Your task to perform on an android device: turn on notifications settings in the gmail app Image 0: 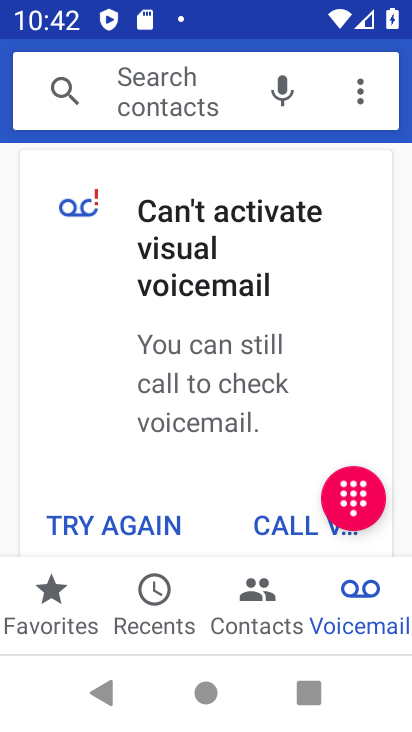
Step 0: press home button
Your task to perform on an android device: turn on notifications settings in the gmail app Image 1: 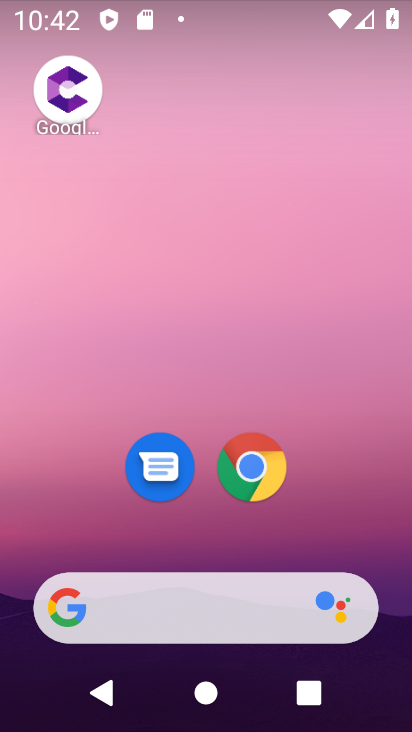
Step 1: drag from (314, 539) to (342, 182)
Your task to perform on an android device: turn on notifications settings in the gmail app Image 2: 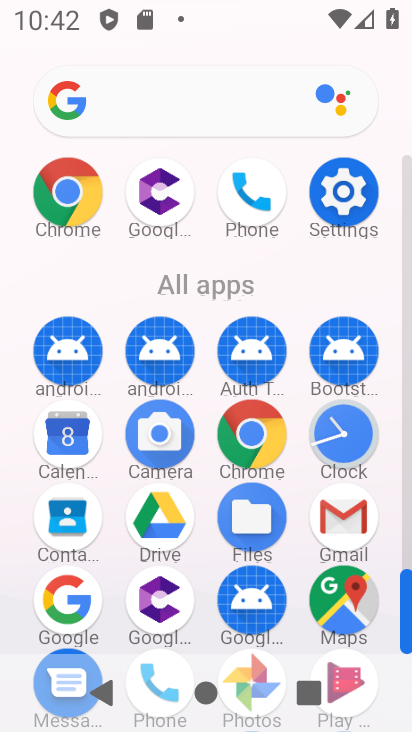
Step 2: click (341, 522)
Your task to perform on an android device: turn on notifications settings in the gmail app Image 3: 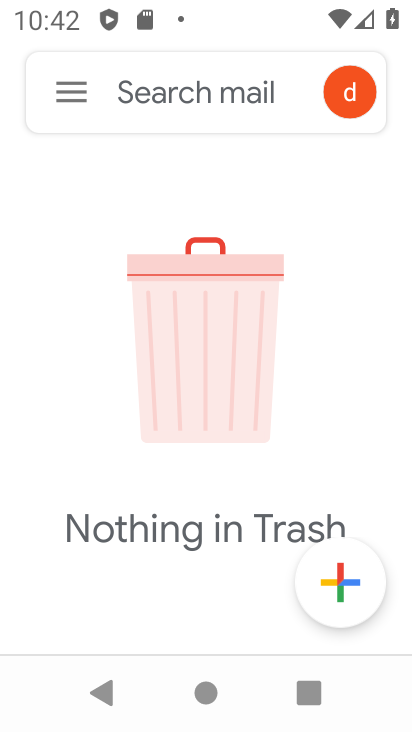
Step 3: click (80, 108)
Your task to perform on an android device: turn on notifications settings in the gmail app Image 4: 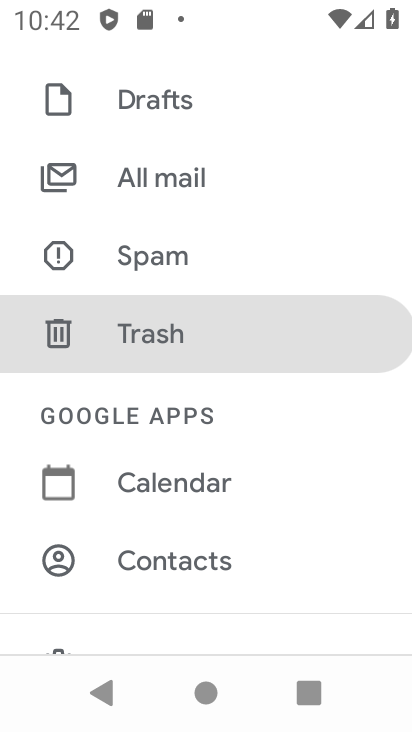
Step 4: drag from (234, 545) to (281, 165)
Your task to perform on an android device: turn on notifications settings in the gmail app Image 5: 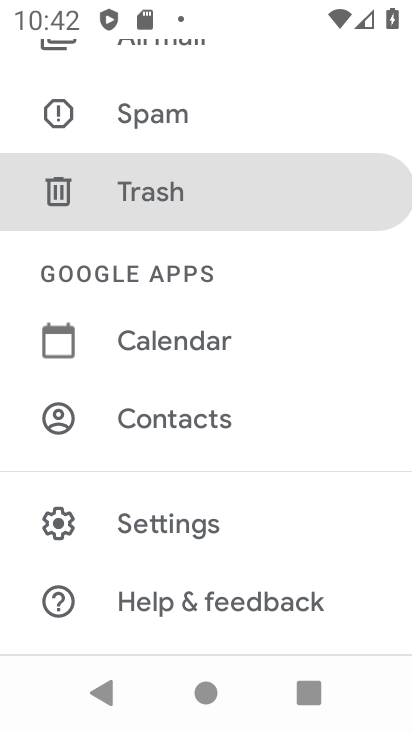
Step 5: click (203, 507)
Your task to perform on an android device: turn on notifications settings in the gmail app Image 6: 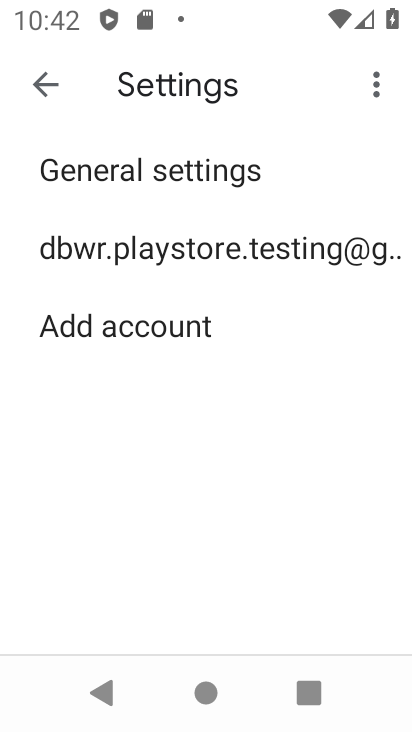
Step 6: click (210, 248)
Your task to perform on an android device: turn on notifications settings in the gmail app Image 7: 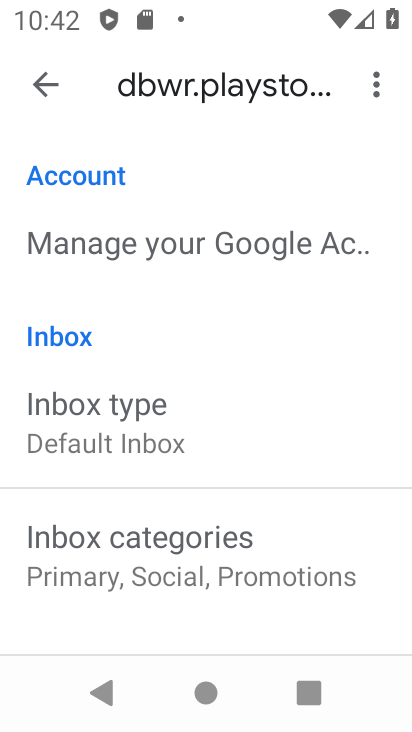
Step 7: task complete